Your task to perform on an android device: create a new album in the google photos Image 0: 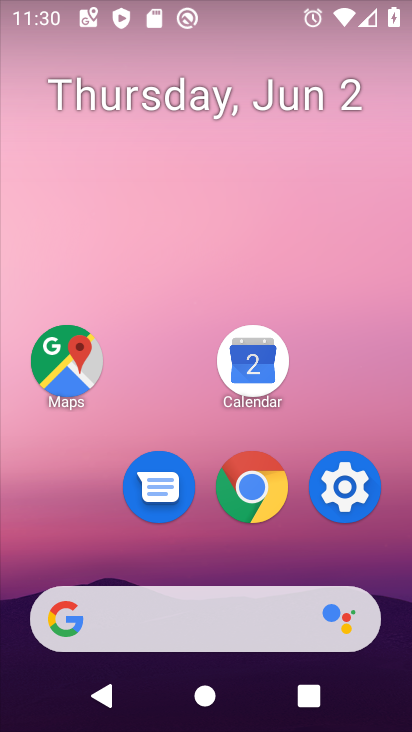
Step 0: drag from (249, 655) to (266, 269)
Your task to perform on an android device: create a new album in the google photos Image 1: 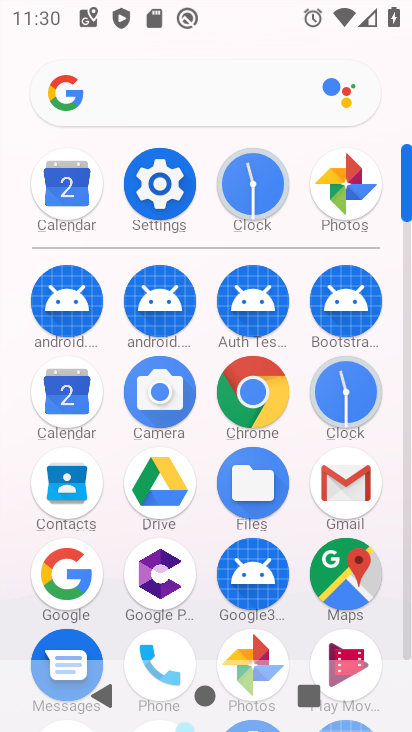
Step 1: click (255, 646)
Your task to perform on an android device: create a new album in the google photos Image 2: 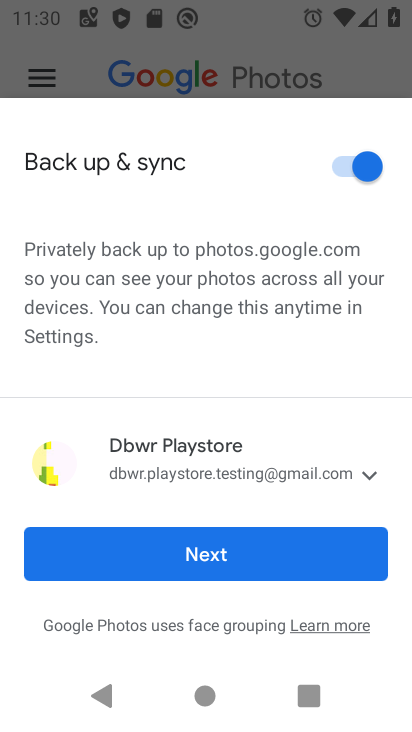
Step 2: click (214, 544)
Your task to perform on an android device: create a new album in the google photos Image 3: 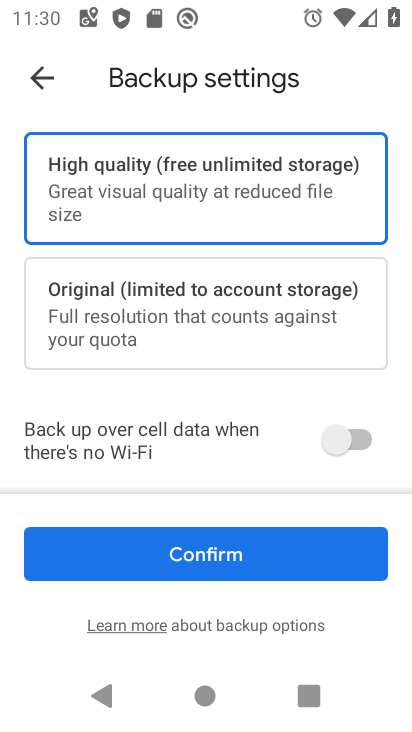
Step 3: click (211, 553)
Your task to perform on an android device: create a new album in the google photos Image 4: 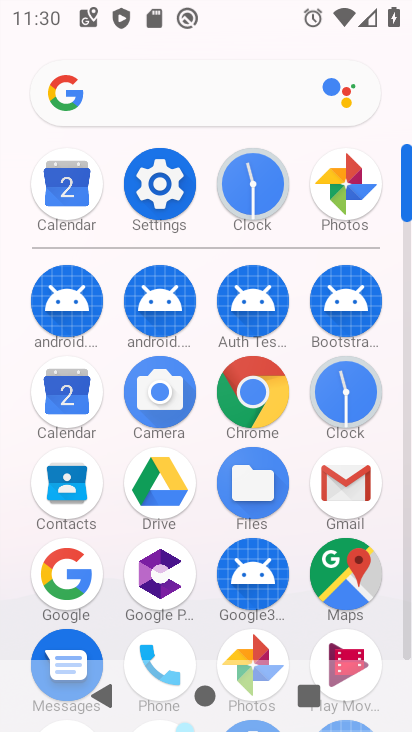
Step 4: click (249, 649)
Your task to perform on an android device: create a new album in the google photos Image 5: 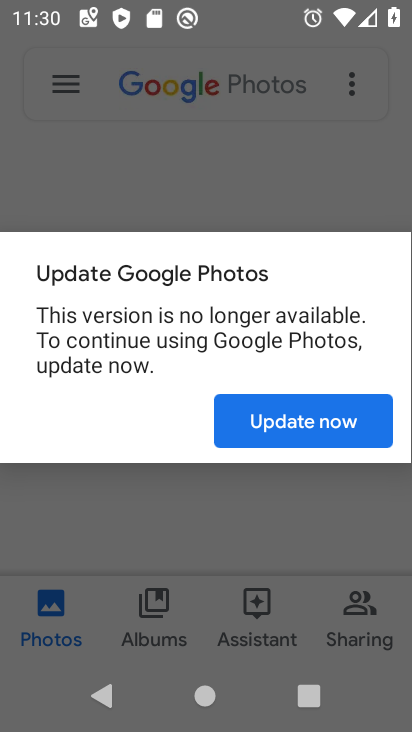
Step 5: click (312, 432)
Your task to perform on an android device: create a new album in the google photos Image 6: 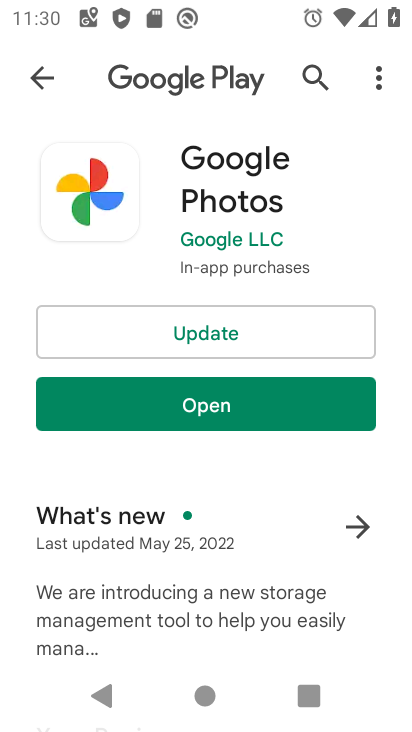
Step 6: click (202, 328)
Your task to perform on an android device: create a new album in the google photos Image 7: 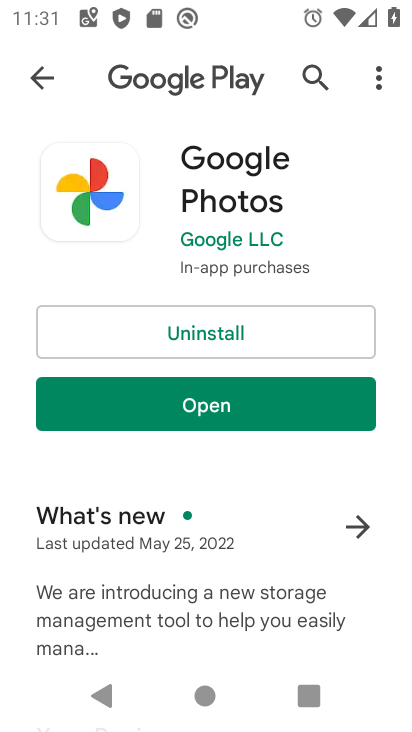
Step 7: click (191, 398)
Your task to perform on an android device: create a new album in the google photos Image 8: 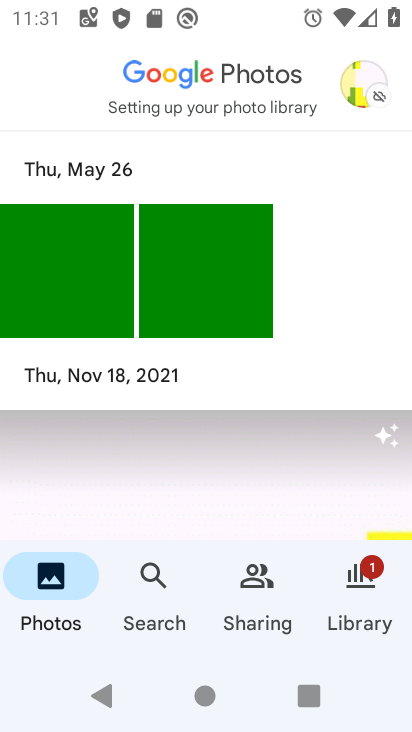
Step 8: click (200, 290)
Your task to perform on an android device: create a new album in the google photos Image 9: 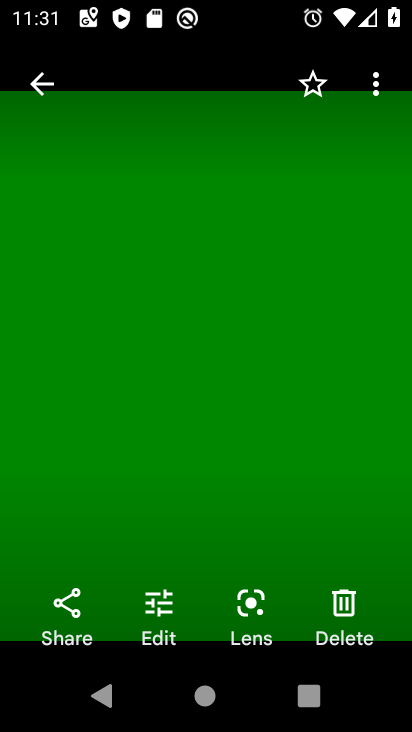
Step 9: click (368, 90)
Your task to perform on an android device: create a new album in the google photos Image 10: 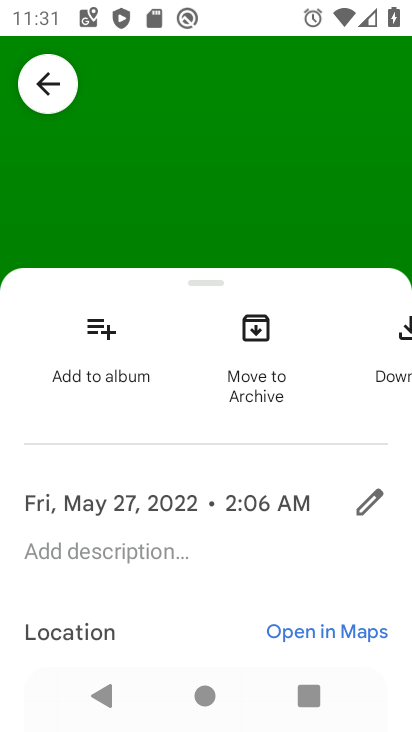
Step 10: click (99, 332)
Your task to perform on an android device: create a new album in the google photos Image 11: 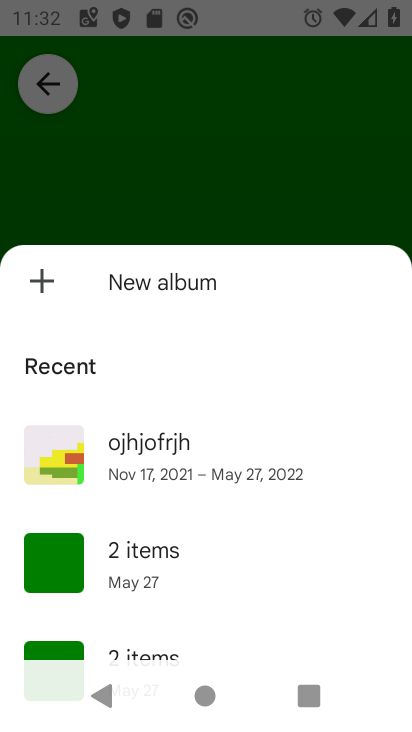
Step 11: click (87, 282)
Your task to perform on an android device: create a new album in the google photos Image 12: 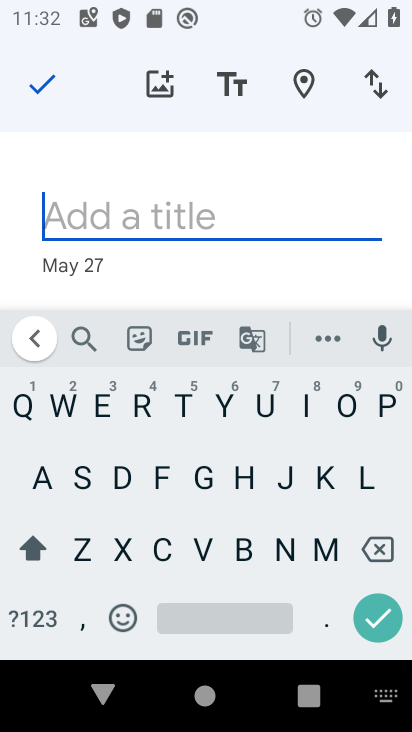
Step 12: click (109, 407)
Your task to perform on an android device: create a new album in the google photos Image 13: 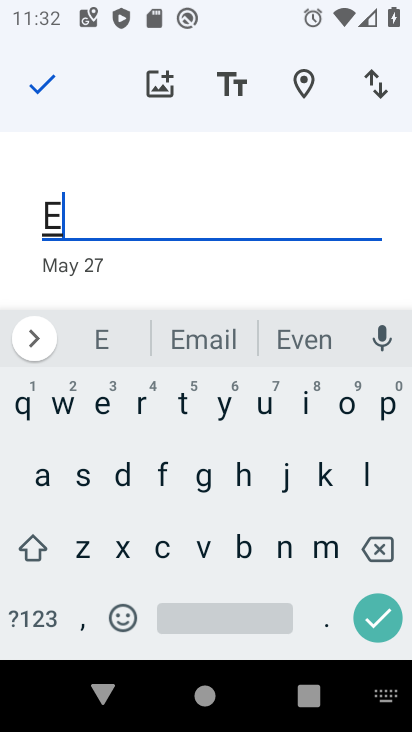
Step 13: click (125, 416)
Your task to perform on an android device: create a new album in the google photos Image 14: 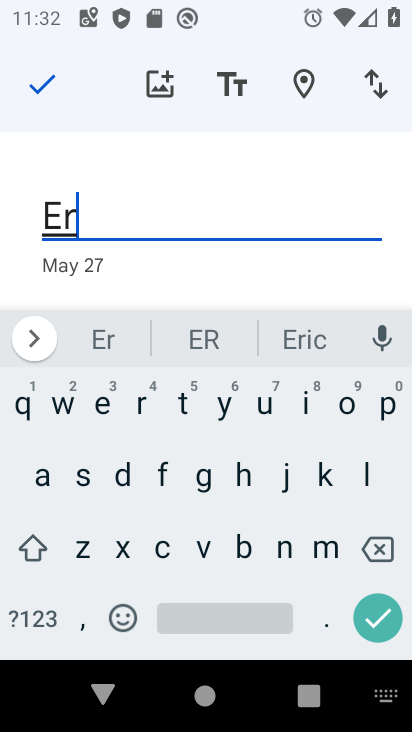
Step 14: click (40, 90)
Your task to perform on an android device: create a new album in the google photos Image 15: 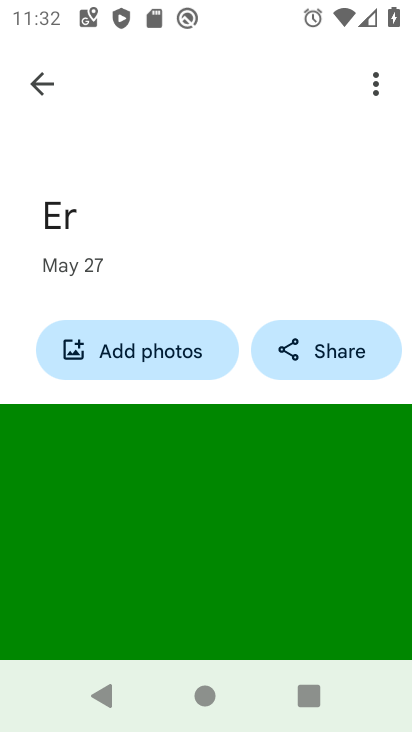
Step 15: task complete